Your task to perform on an android device: Open Google Maps and go to "Timeline" Image 0: 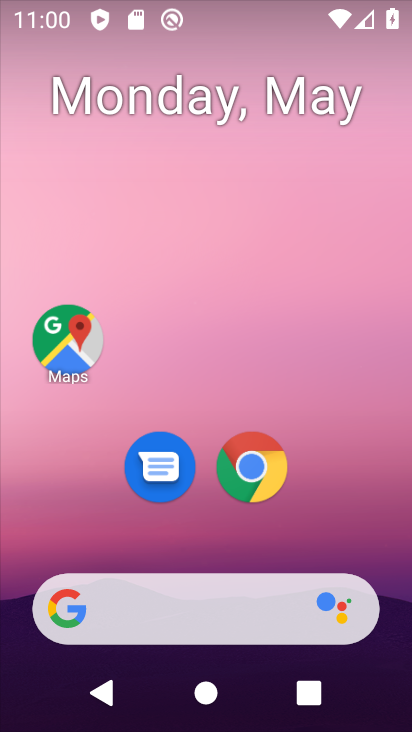
Step 0: drag from (303, 499) to (295, 92)
Your task to perform on an android device: Open Google Maps and go to "Timeline" Image 1: 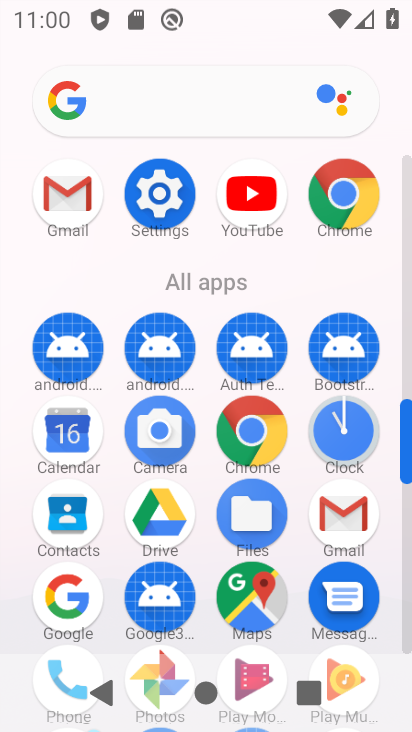
Step 1: click (240, 597)
Your task to perform on an android device: Open Google Maps and go to "Timeline" Image 2: 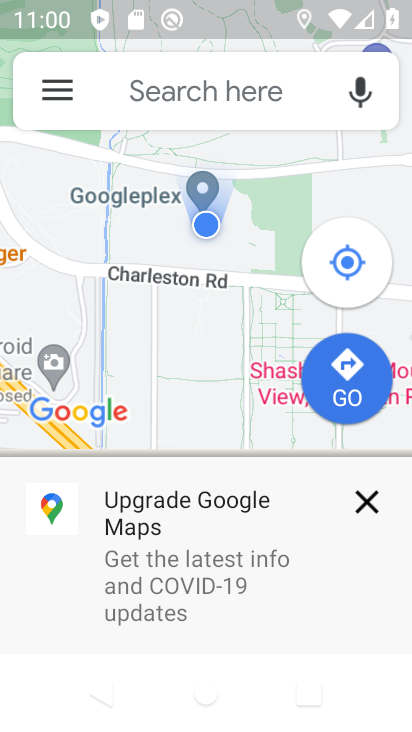
Step 2: click (372, 511)
Your task to perform on an android device: Open Google Maps and go to "Timeline" Image 3: 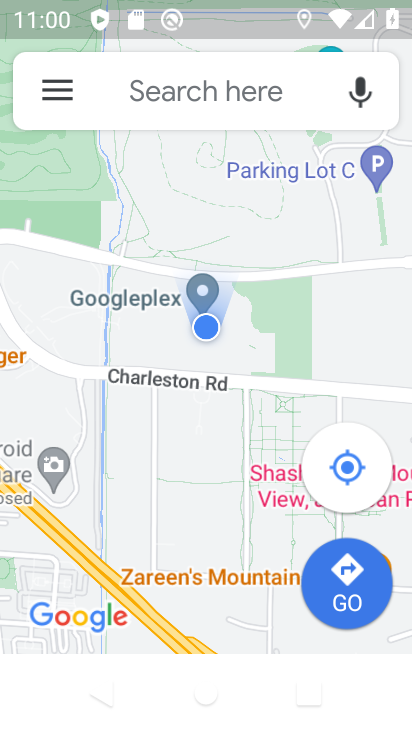
Step 3: click (69, 108)
Your task to perform on an android device: Open Google Maps and go to "Timeline" Image 4: 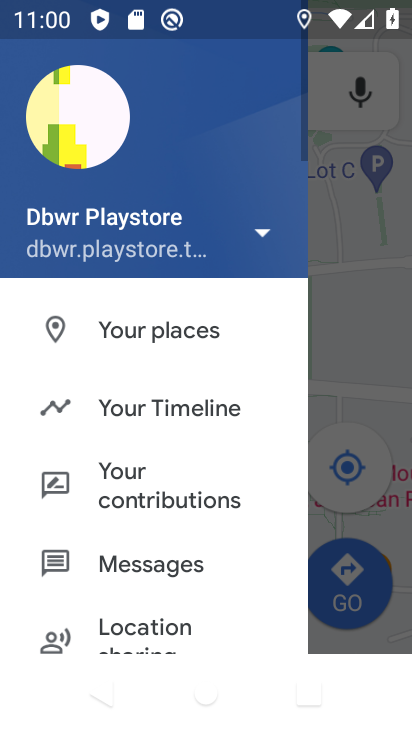
Step 4: click (122, 384)
Your task to perform on an android device: Open Google Maps and go to "Timeline" Image 5: 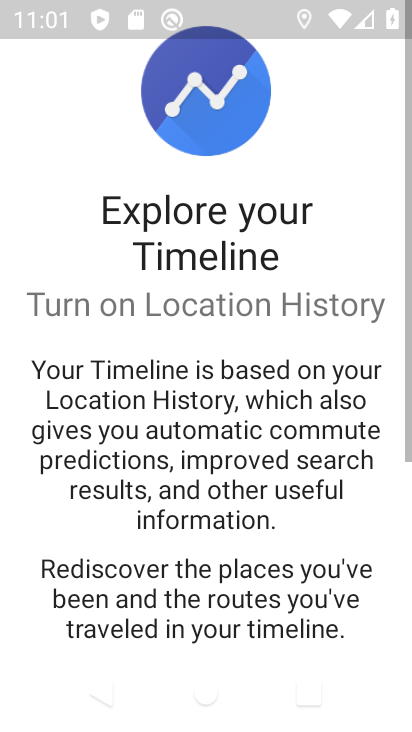
Step 5: task complete